Your task to perform on an android device: Go to eBay Image 0: 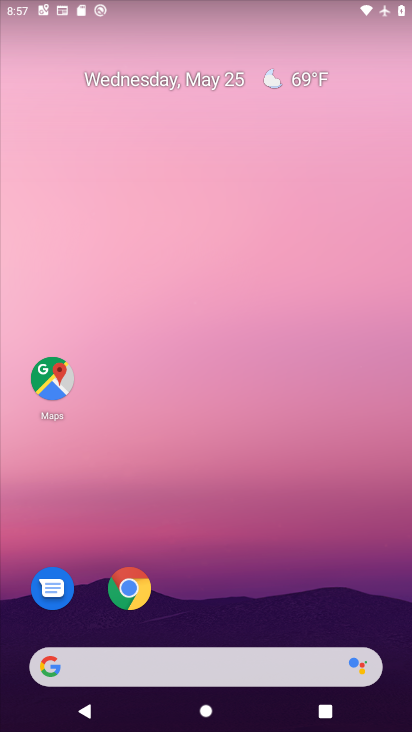
Step 0: drag from (363, 601) to (364, 197)
Your task to perform on an android device: Go to eBay Image 1: 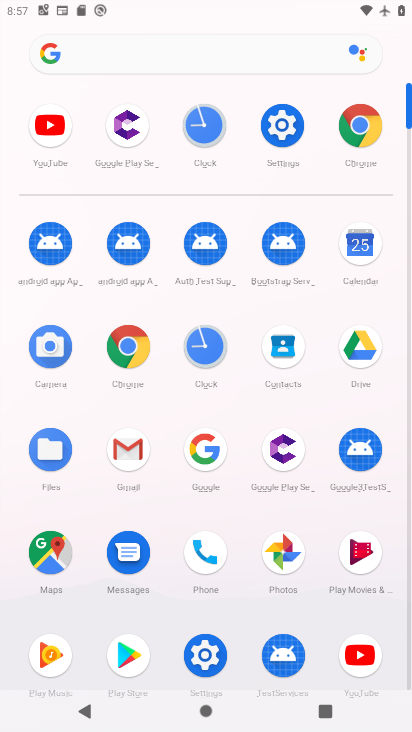
Step 1: click (131, 358)
Your task to perform on an android device: Go to eBay Image 2: 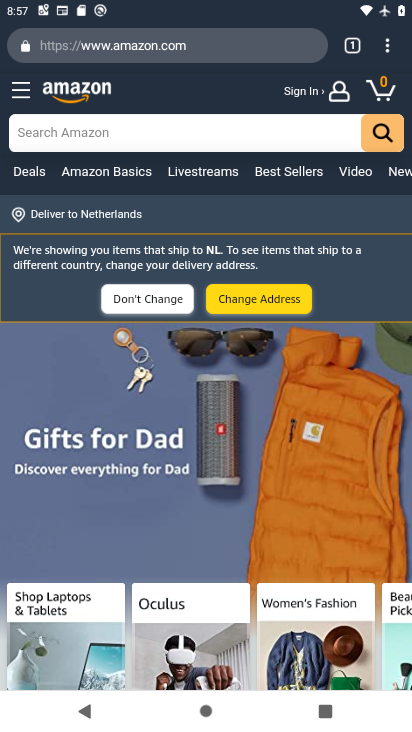
Step 2: click (222, 46)
Your task to perform on an android device: Go to eBay Image 3: 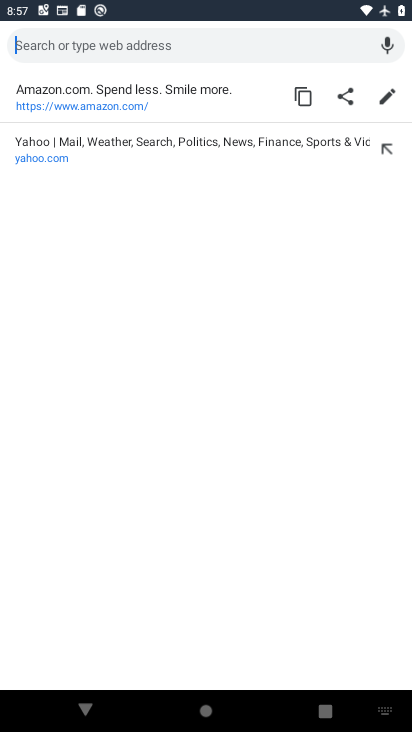
Step 3: type "ebay"
Your task to perform on an android device: Go to eBay Image 4: 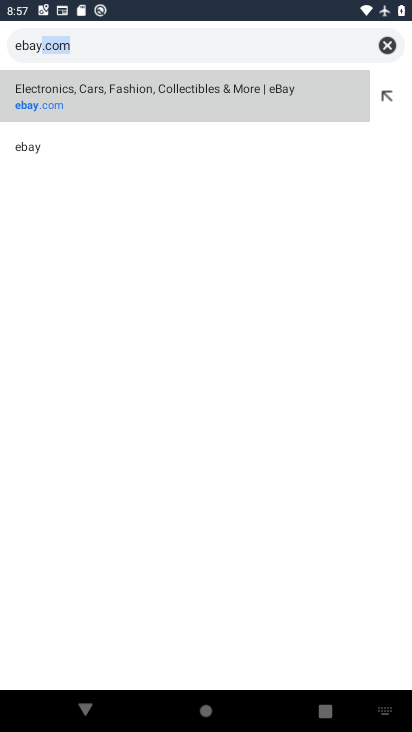
Step 4: click (125, 92)
Your task to perform on an android device: Go to eBay Image 5: 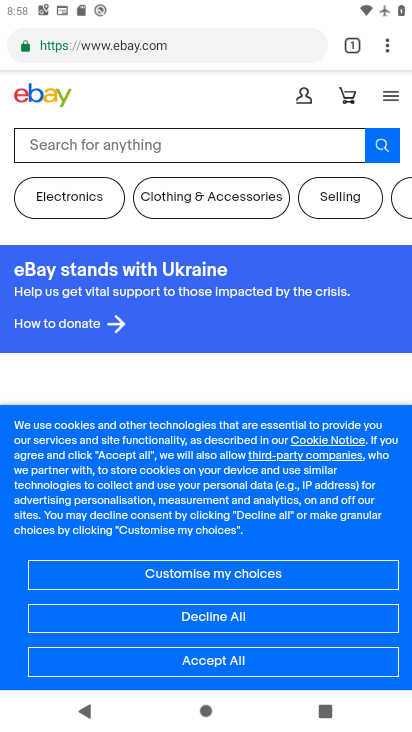
Step 5: task complete